Your task to perform on an android device: Go to Google maps Image 0: 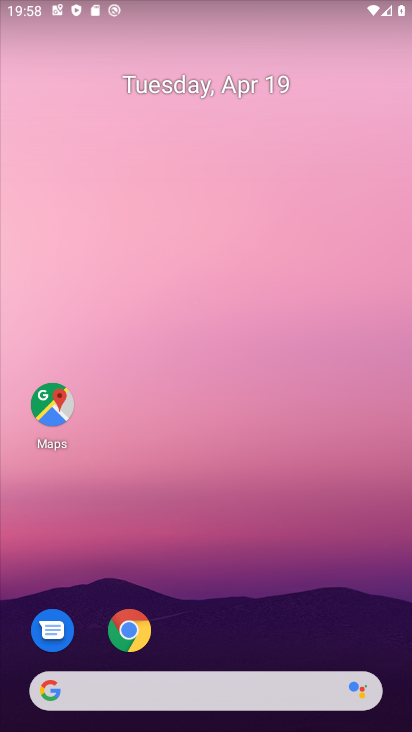
Step 0: drag from (377, 629) to (342, 13)
Your task to perform on an android device: Go to Google maps Image 1: 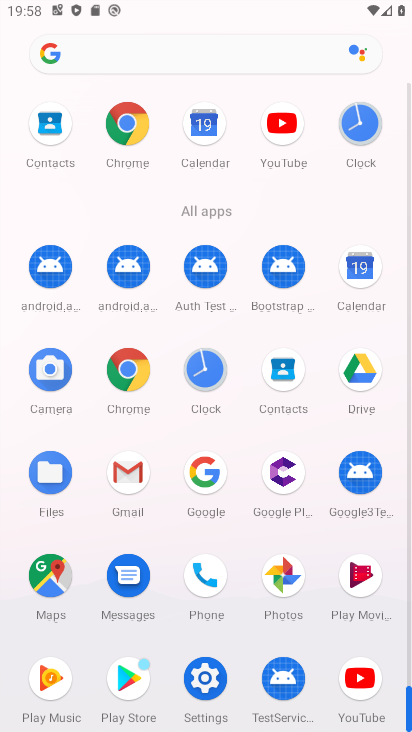
Step 1: click (46, 578)
Your task to perform on an android device: Go to Google maps Image 2: 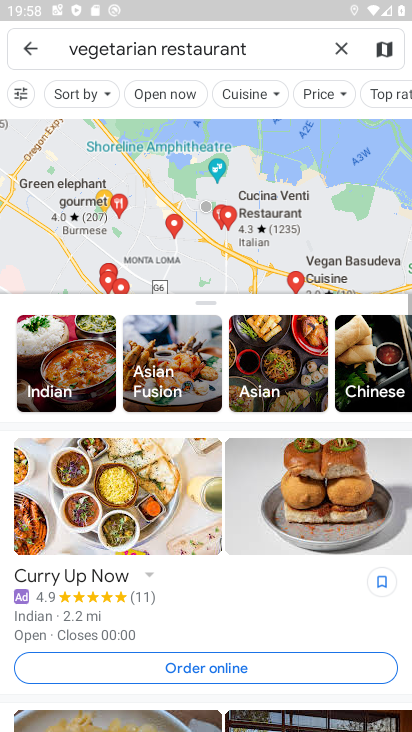
Step 2: click (342, 54)
Your task to perform on an android device: Go to Google maps Image 3: 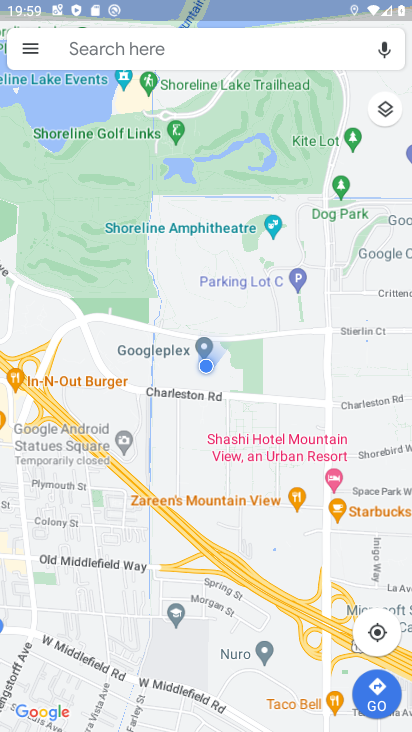
Step 3: task complete